Your task to perform on an android device: delete browsing data in the chrome app Image 0: 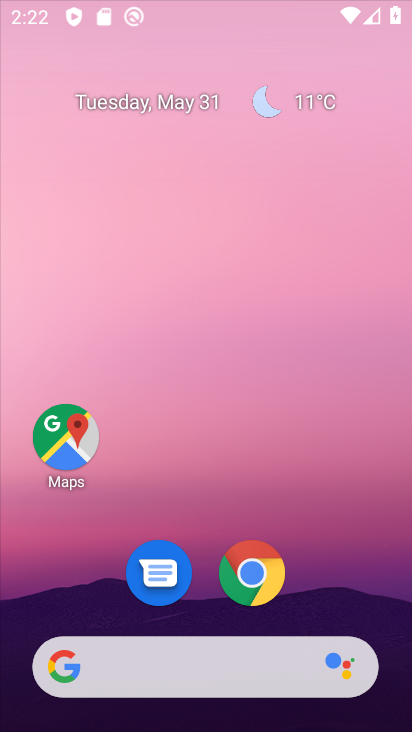
Step 0: drag from (384, 608) to (311, 240)
Your task to perform on an android device: delete browsing data in the chrome app Image 1: 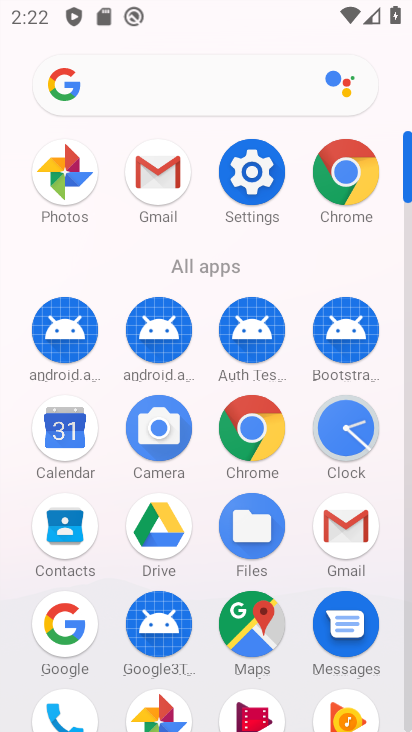
Step 1: click (334, 202)
Your task to perform on an android device: delete browsing data in the chrome app Image 2: 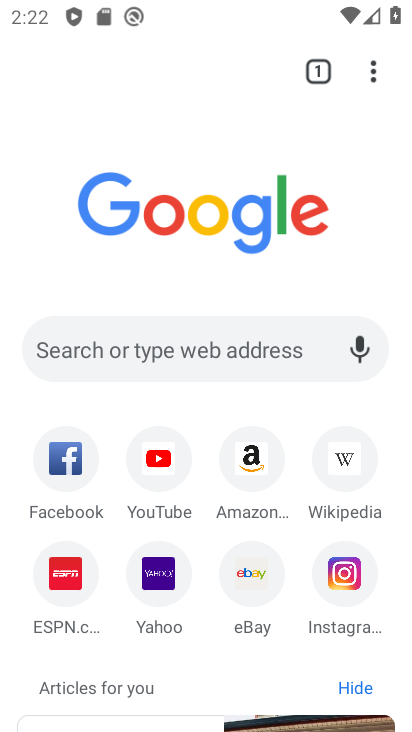
Step 2: click (384, 79)
Your task to perform on an android device: delete browsing data in the chrome app Image 3: 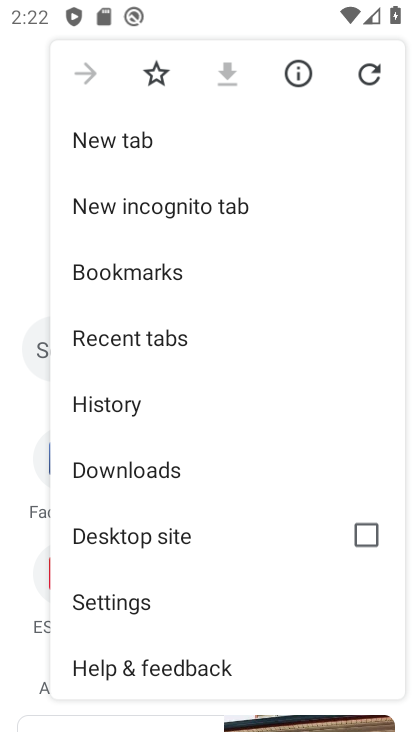
Step 3: click (173, 399)
Your task to perform on an android device: delete browsing data in the chrome app Image 4: 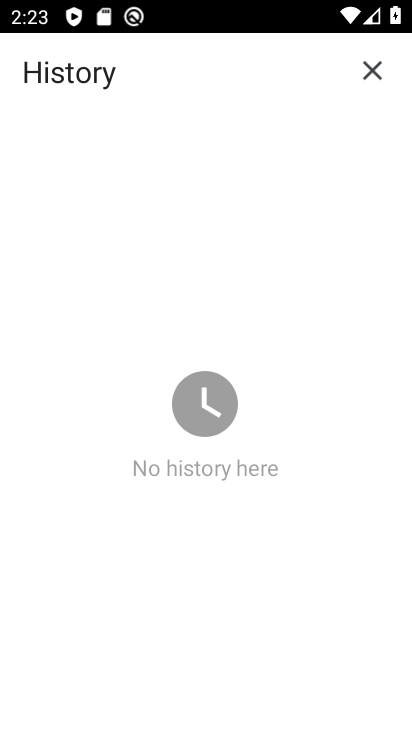
Step 4: task complete